Your task to perform on an android device: Is it going to rain tomorrow? Image 0: 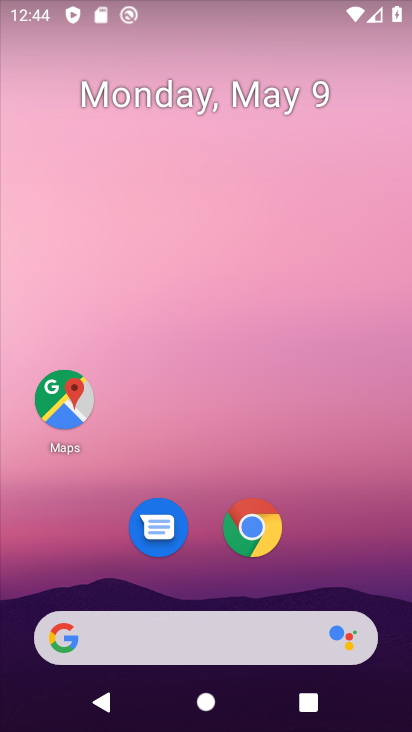
Step 0: drag from (320, 573) to (387, 8)
Your task to perform on an android device: Is it going to rain tomorrow? Image 1: 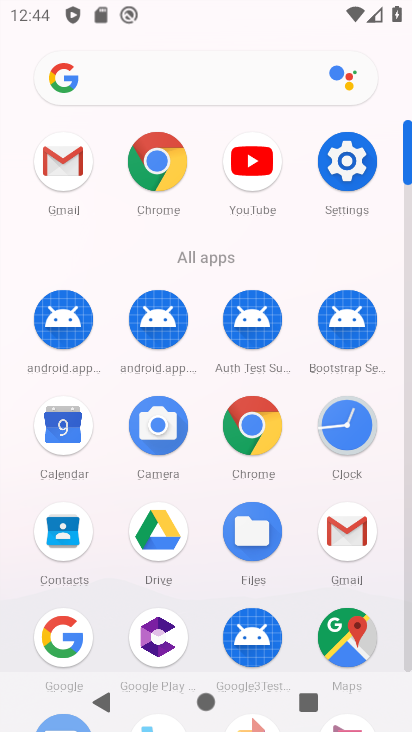
Step 1: click (226, 89)
Your task to perform on an android device: Is it going to rain tomorrow? Image 2: 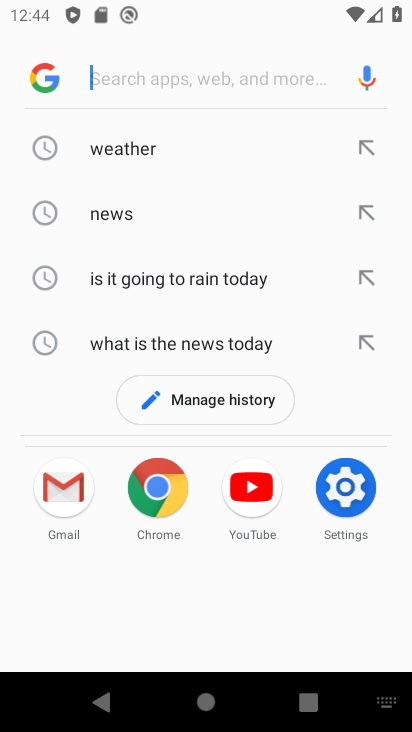
Step 2: type "is it going to rain tomorrow"
Your task to perform on an android device: Is it going to rain tomorrow? Image 3: 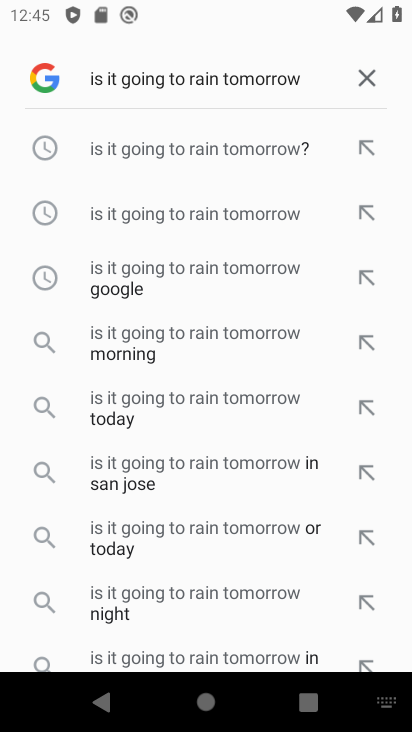
Step 3: click (271, 130)
Your task to perform on an android device: Is it going to rain tomorrow? Image 4: 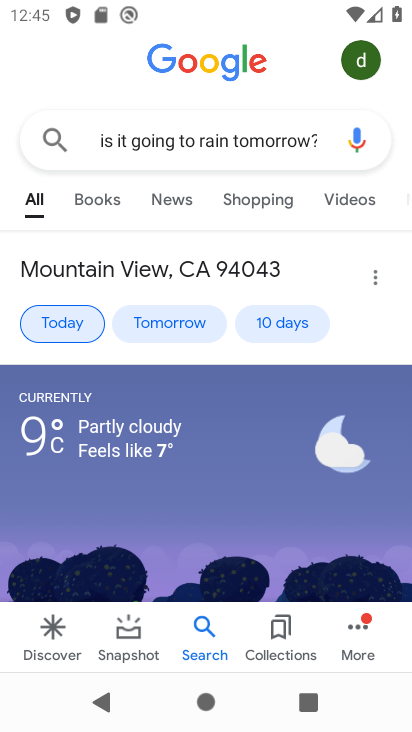
Step 4: task complete